Your task to perform on an android device: change the clock style Image 0: 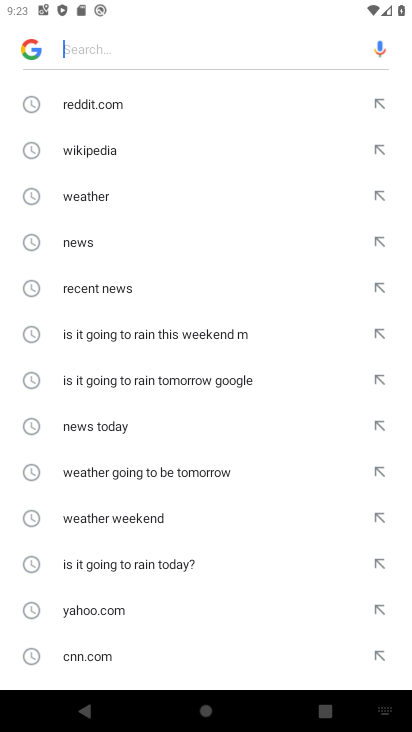
Step 0: press back button
Your task to perform on an android device: change the clock style Image 1: 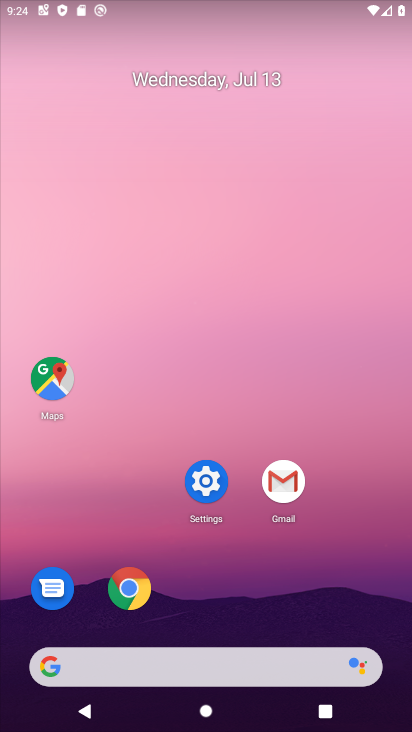
Step 1: drag from (400, 660) to (327, 81)
Your task to perform on an android device: change the clock style Image 2: 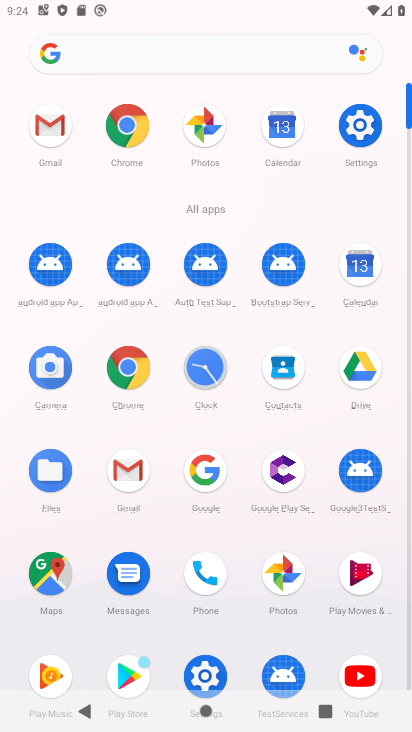
Step 2: click (215, 368)
Your task to perform on an android device: change the clock style Image 3: 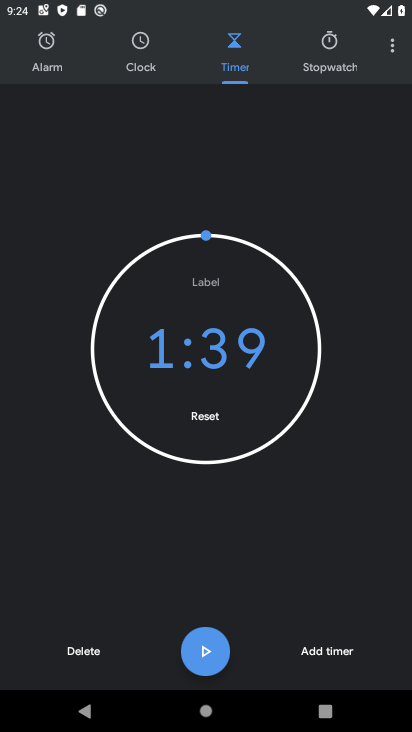
Step 3: click (394, 51)
Your task to perform on an android device: change the clock style Image 4: 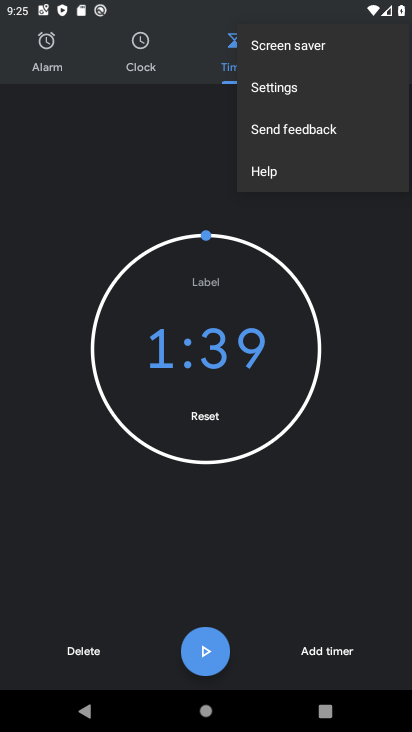
Step 4: click (274, 91)
Your task to perform on an android device: change the clock style Image 5: 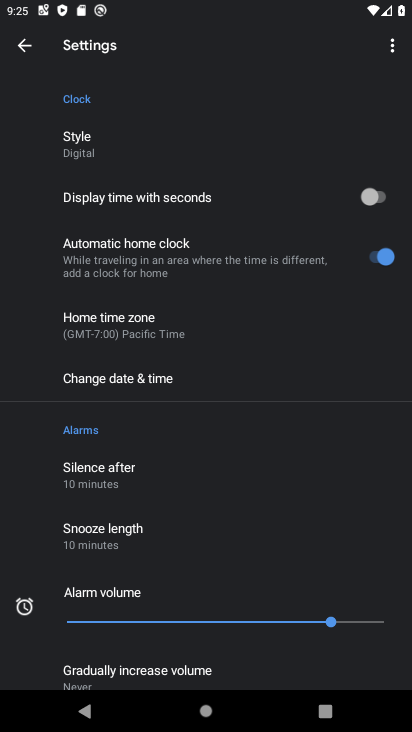
Step 5: click (87, 140)
Your task to perform on an android device: change the clock style Image 6: 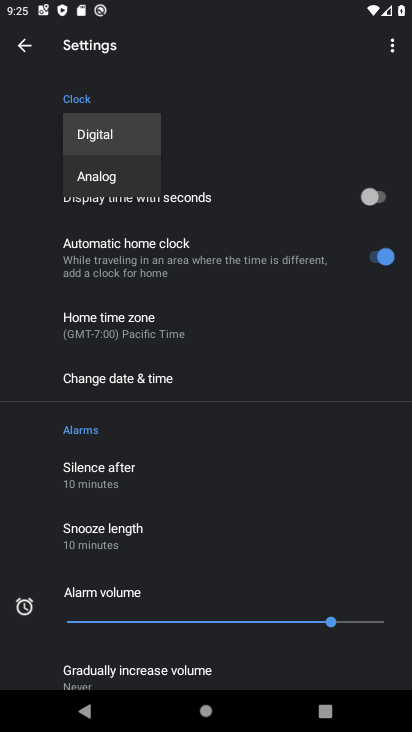
Step 6: click (76, 181)
Your task to perform on an android device: change the clock style Image 7: 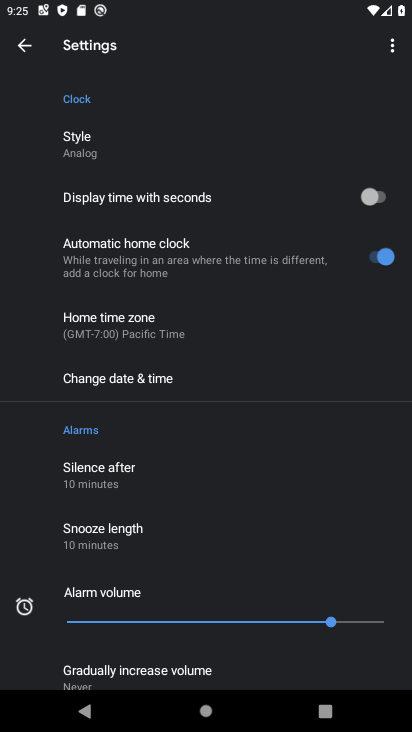
Step 7: task complete